Your task to perform on an android device: all mails in gmail Image 0: 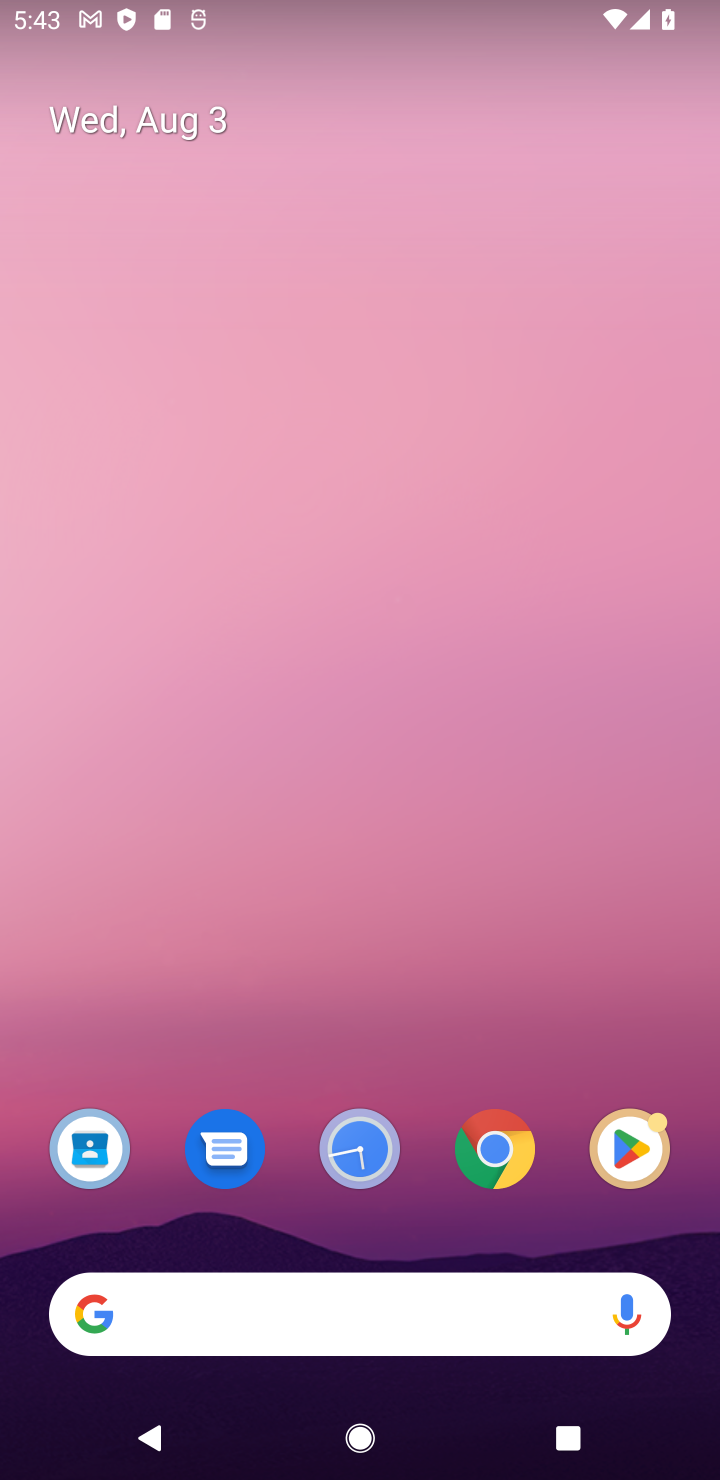
Step 0: drag from (443, 1298) to (318, 241)
Your task to perform on an android device: all mails in gmail Image 1: 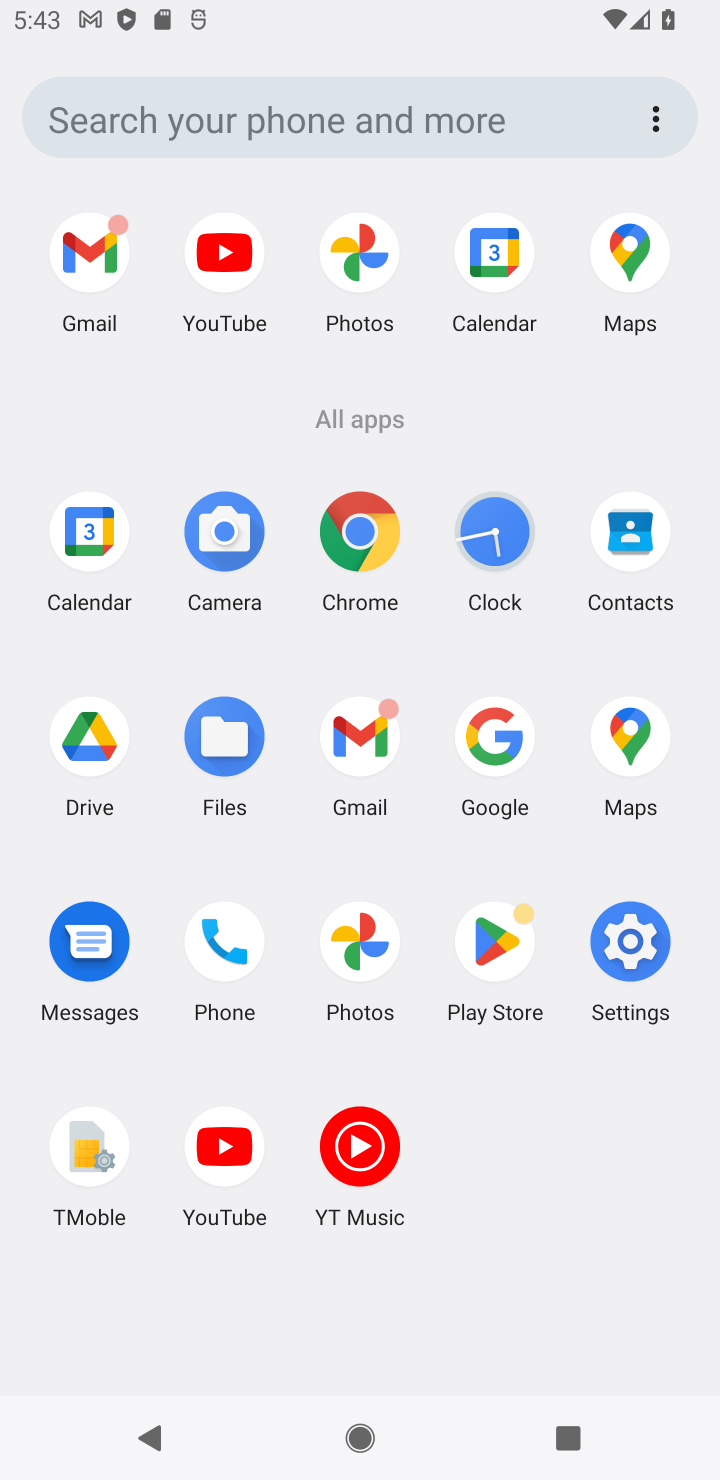
Step 1: click (365, 743)
Your task to perform on an android device: all mails in gmail Image 2: 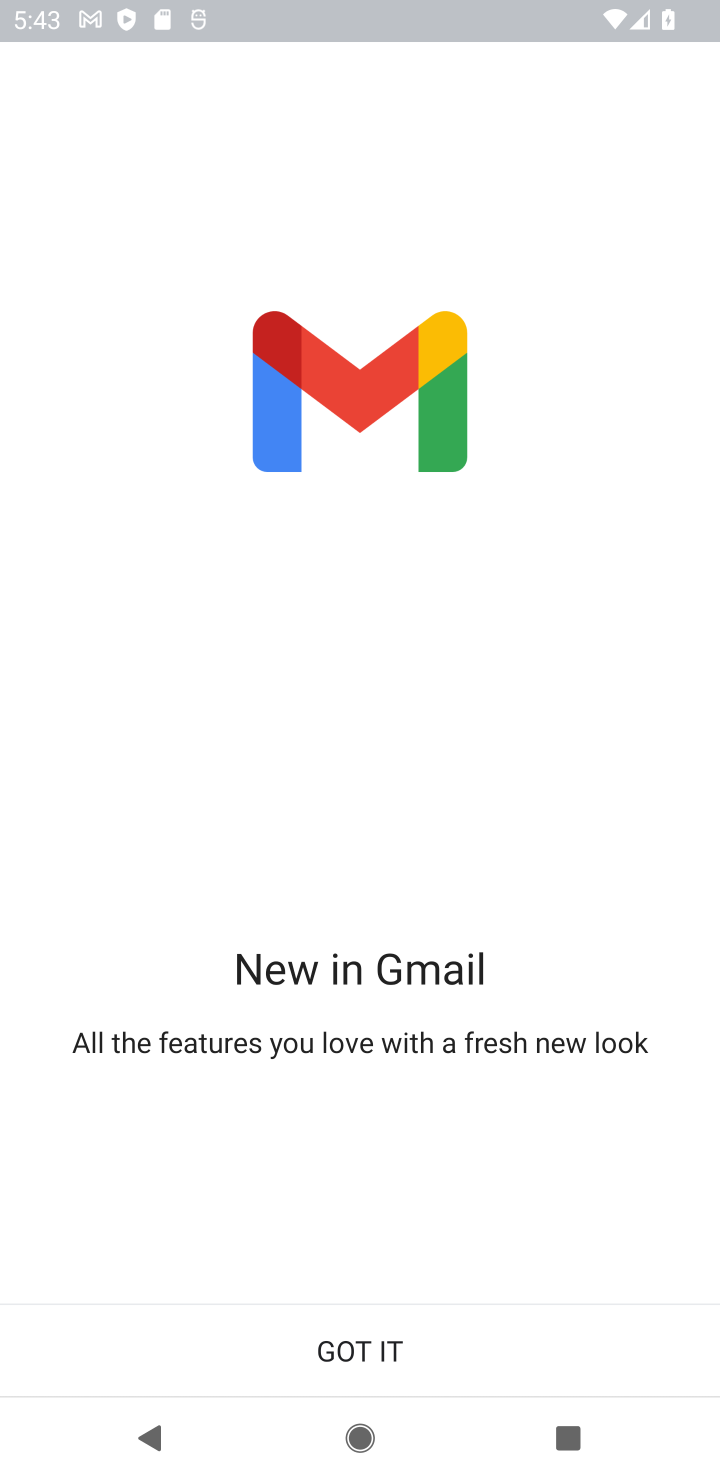
Step 2: click (423, 1355)
Your task to perform on an android device: all mails in gmail Image 3: 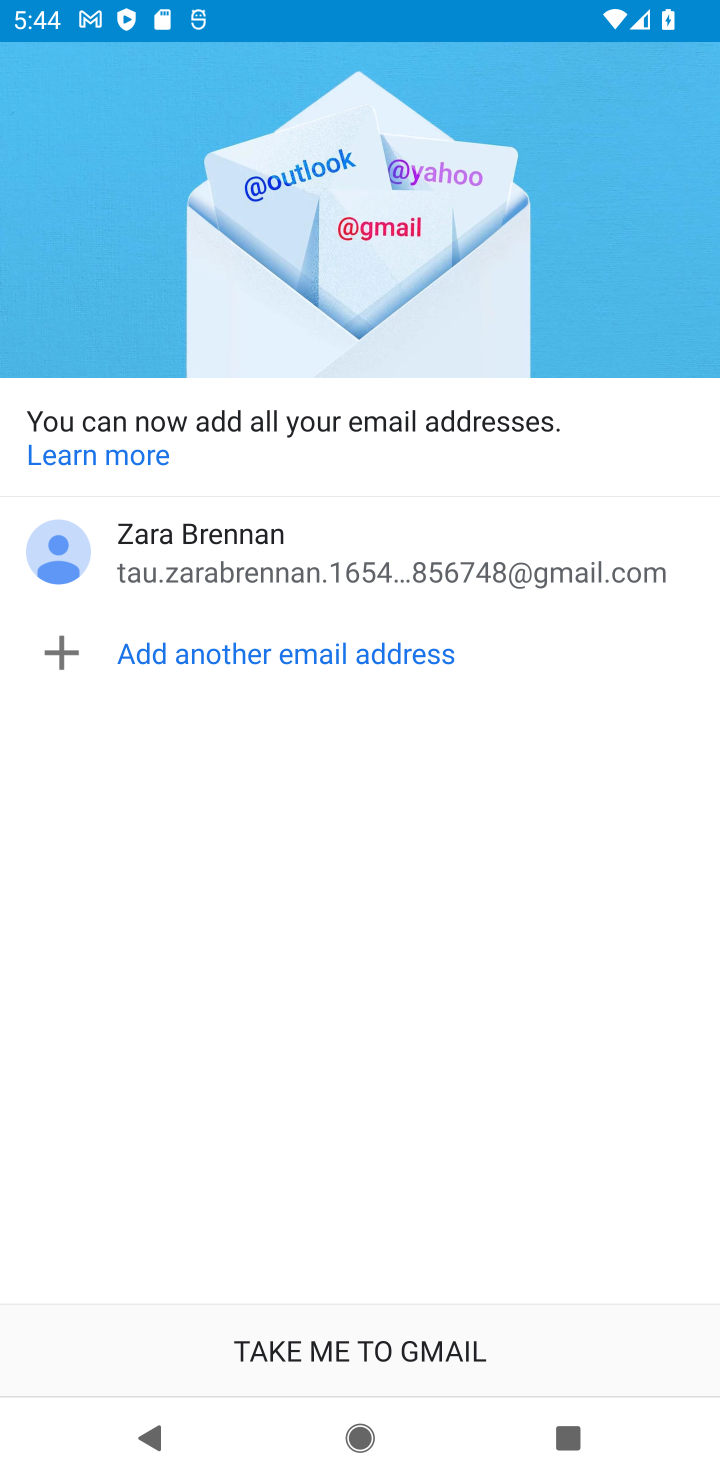
Step 3: click (369, 1355)
Your task to perform on an android device: all mails in gmail Image 4: 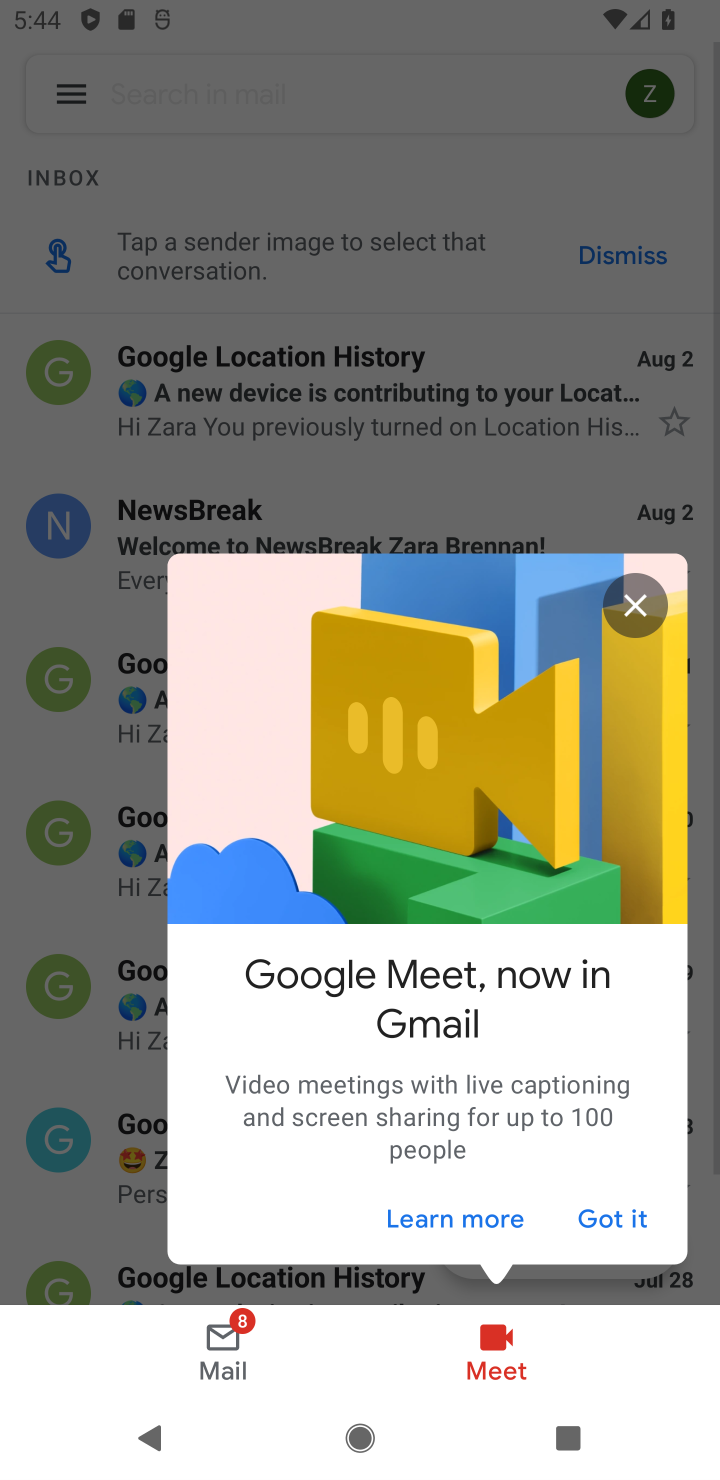
Step 4: click (637, 1206)
Your task to perform on an android device: all mails in gmail Image 5: 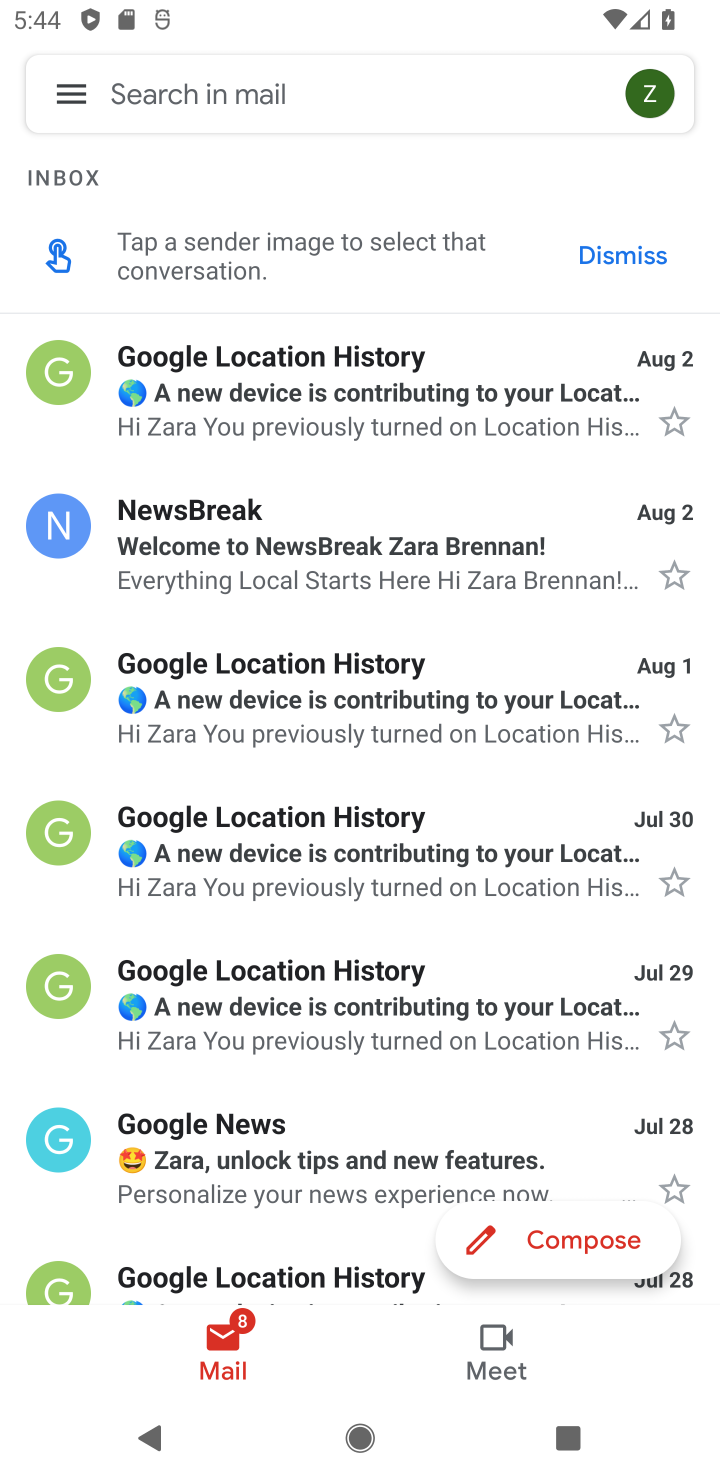
Step 5: click (80, 101)
Your task to perform on an android device: all mails in gmail Image 6: 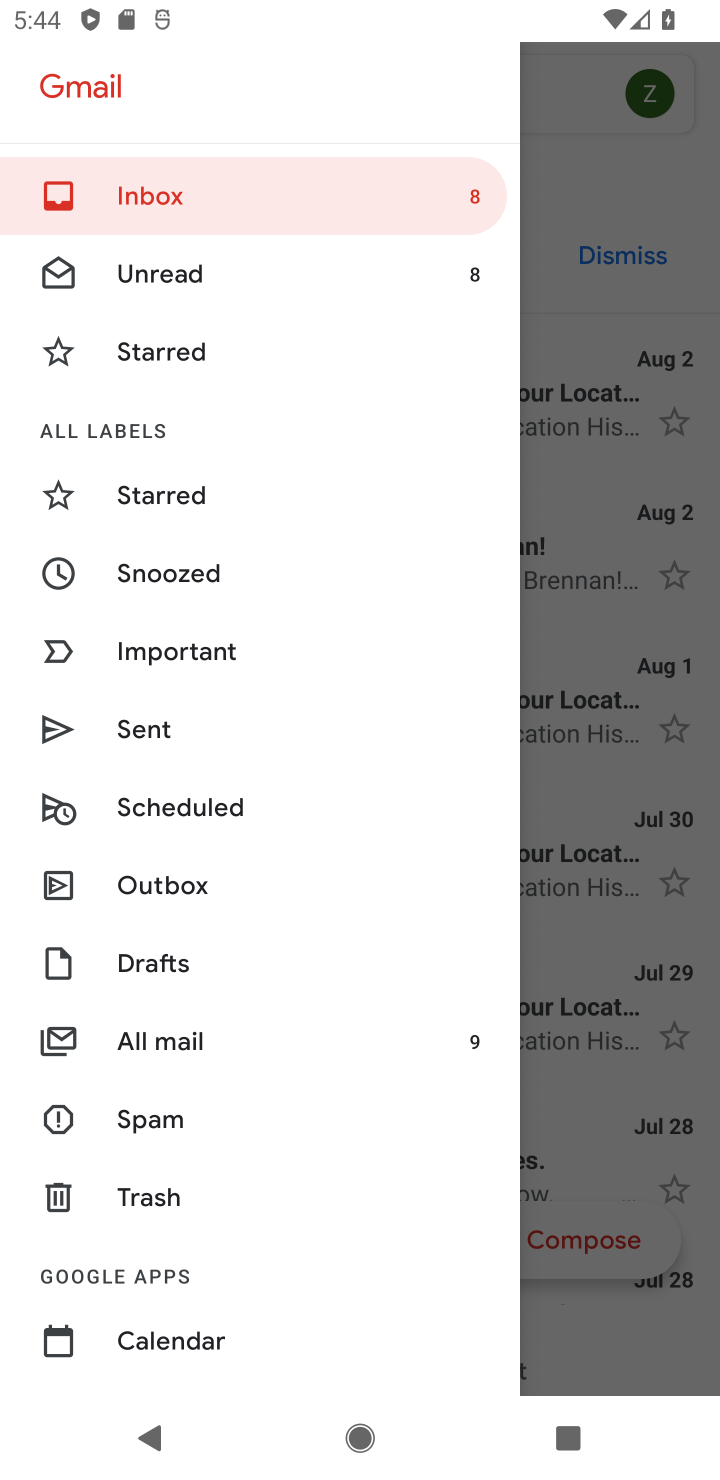
Step 6: click (200, 1030)
Your task to perform on an android device: all mails in gmail Image 7: 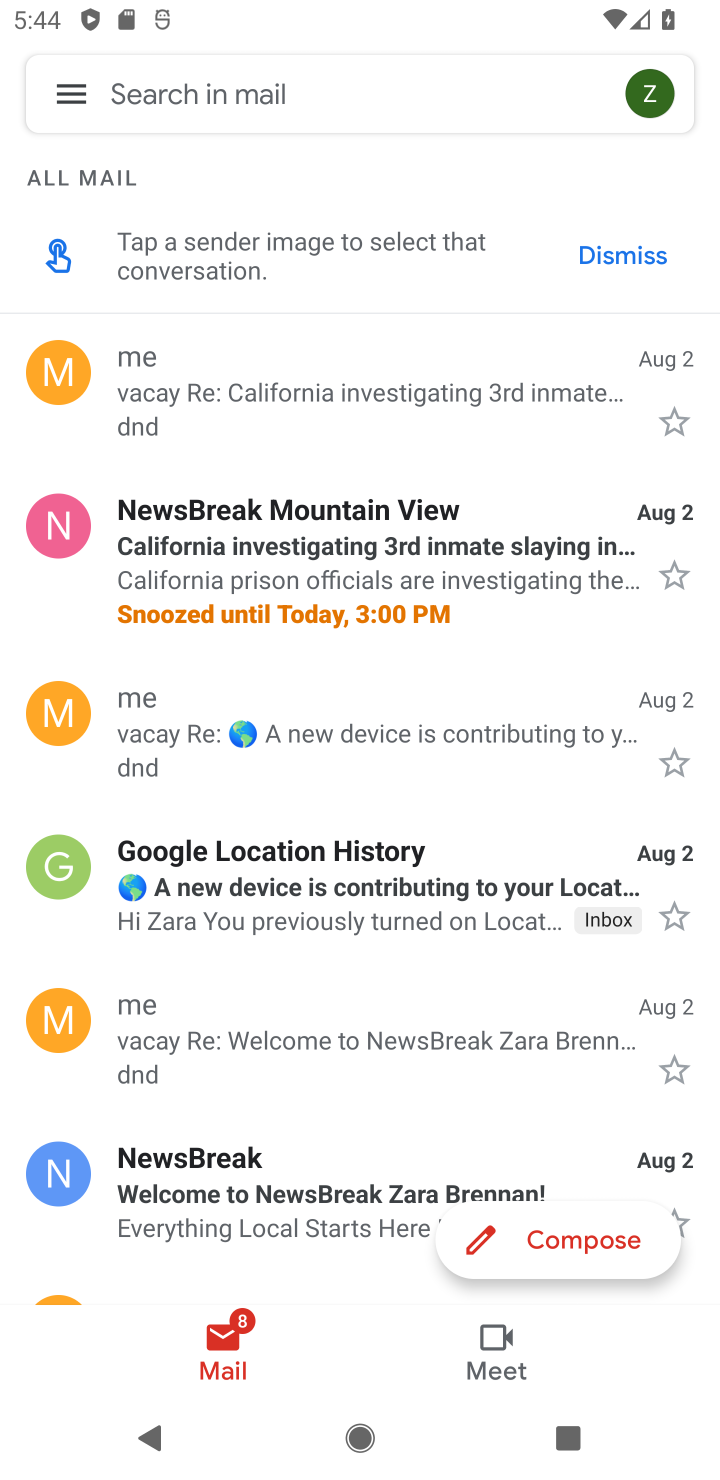
Step 7: task complete